Your task to perform on an android device: turn on sleep mode Image 0: 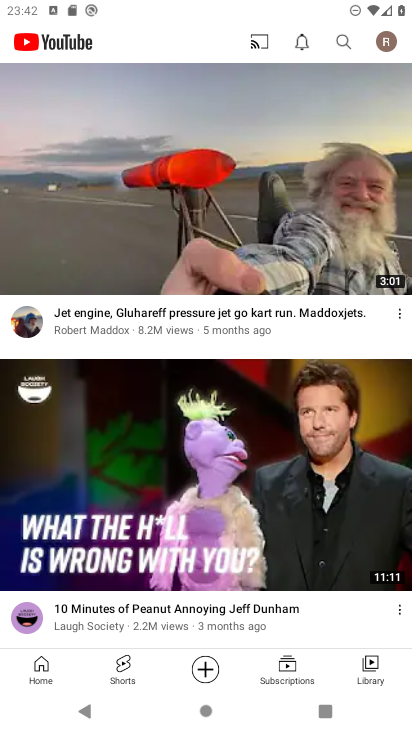
Step 0: press home button
Your task to perform on an android device: turn on sleep mode Image 1: 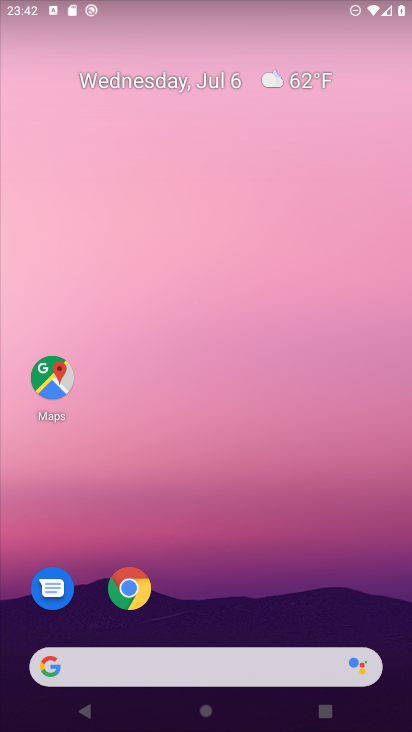
Step 1: drag from (346, 602) to (332, 78)
Your task to perform on an android device: turn on sleep mode Image 2: 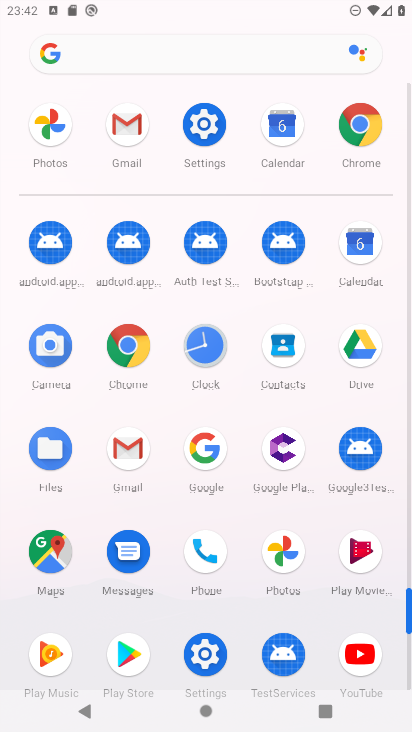
Step 2: click (207, 654)
Your task to perform on an android device: turn on sleep mode Image 3: 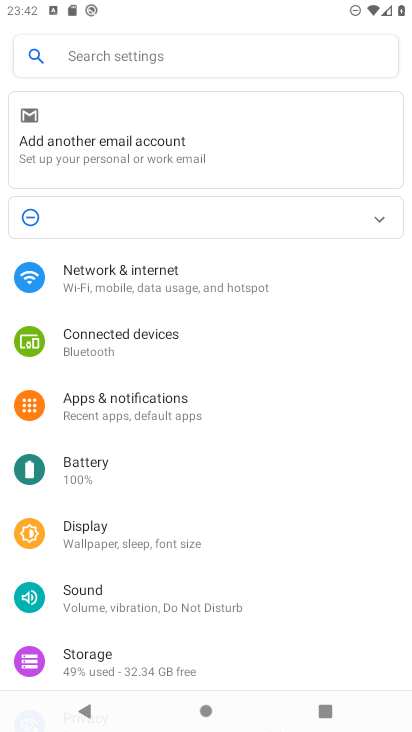
Step 3: drag from (271, 595) to (264, 401)
Your task to perform on an android device: turn on sleep mode Image 4: 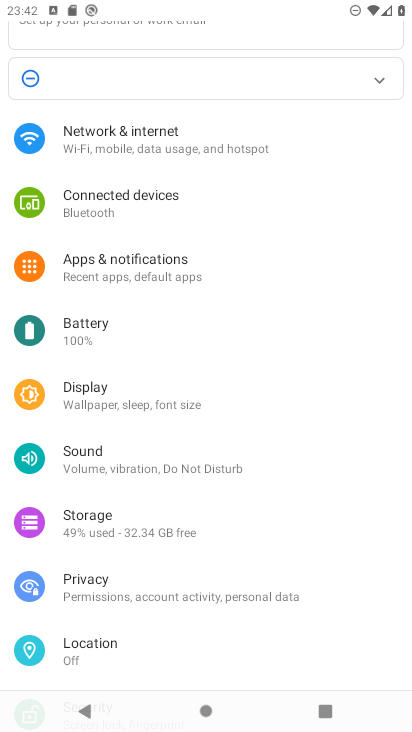
Step 4: click (110, 393)
Your task to perform on an android device: turn on sleep mode Image 5: 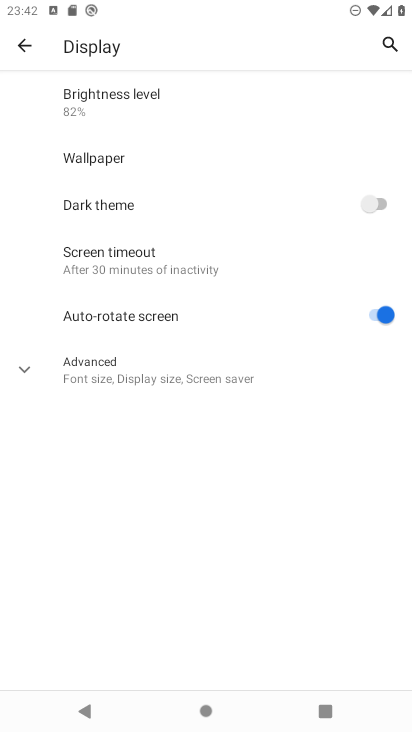
Step 5: click (32, 368)
Your task to perform on an android device: turn on sleep mode Image 6: 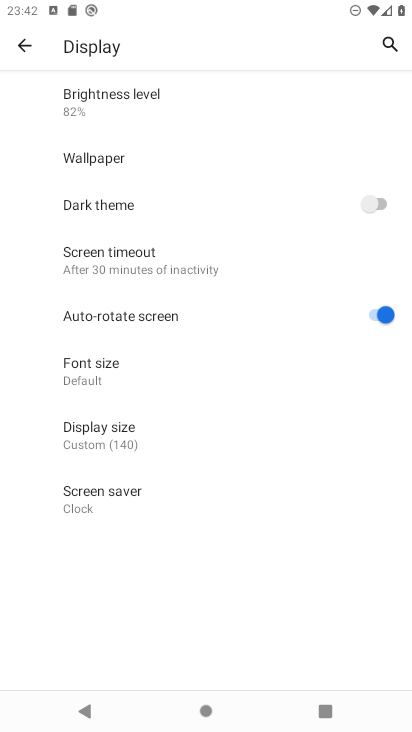
Step 6: task complete